Your task to perform on an android device: delete a single message in the gmail app Image 0: 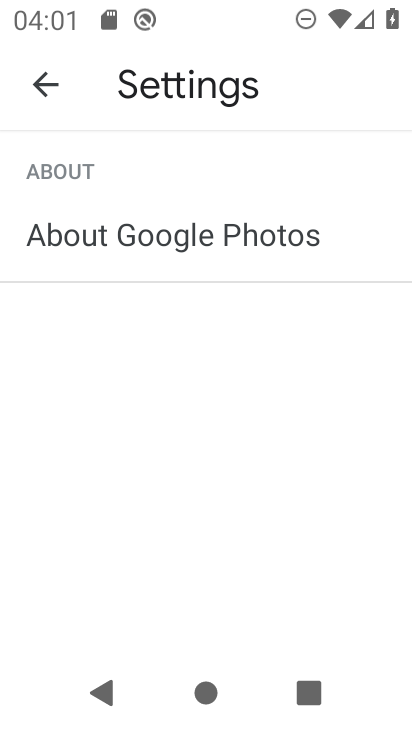
Step 0: press back button
Your task to perform on an android device: delete a single message in the gmail app Image 1: 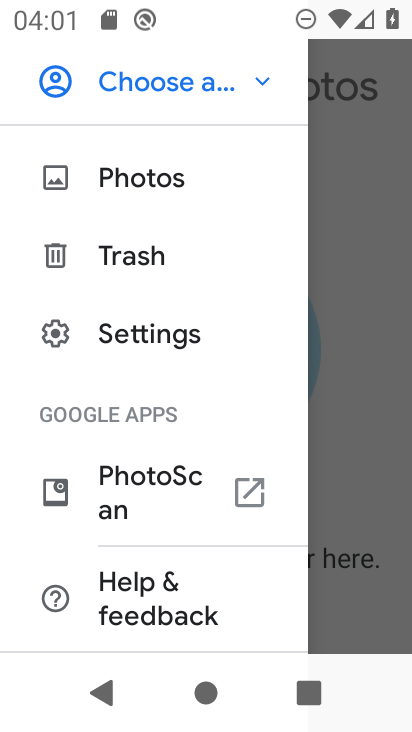
Step 1: press back button
Your task to perform on an android device: delete a single message in the gmail app Image 2: 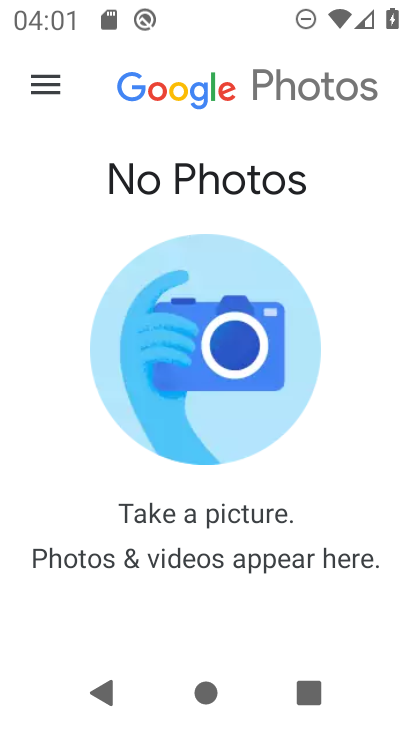
Step 2: press back button
Your task to perform on an android device: delete a single message in the gmail app Image 3: 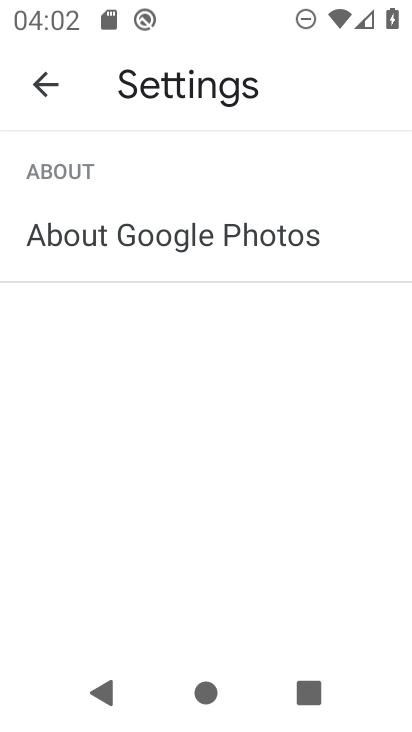
Step 3: press back button
Your task to perform on an android device: delete a single message in the gmail app Image 4: 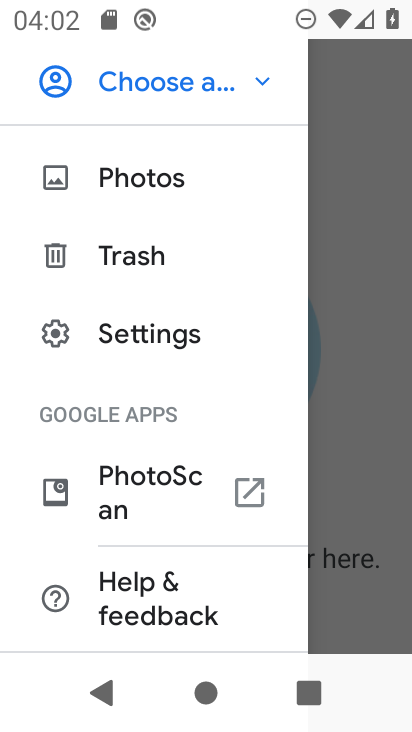
Step 4: press home button
Your task to perform on an android device: delete a single message in the gmail app Image 5: 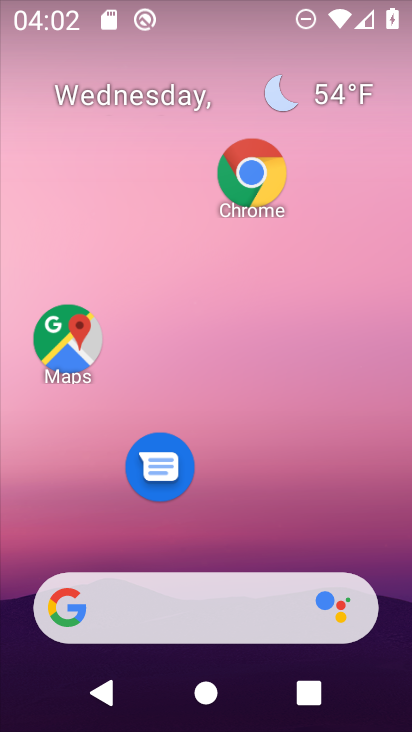
Step 5: drag from (251, 468) to (240, 75)
Your task to perform on an android device: delete a single message in the gmail app Image 6: 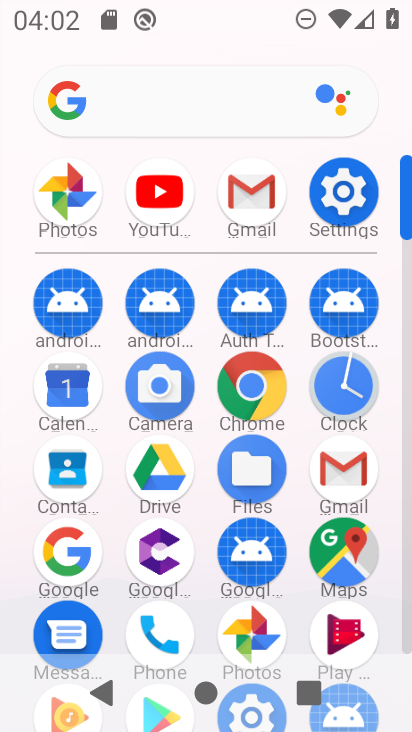
Step 6: click (253, 190)
Your task to perform on an android device: delete a single message in the gmail app Image 7: 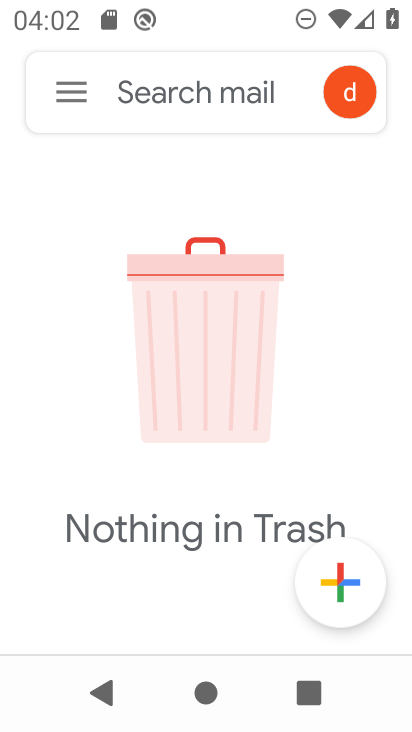
Step 7: click (57, 78)
Your task to perform on an android device: delete a single message in the gmail app Image 8: 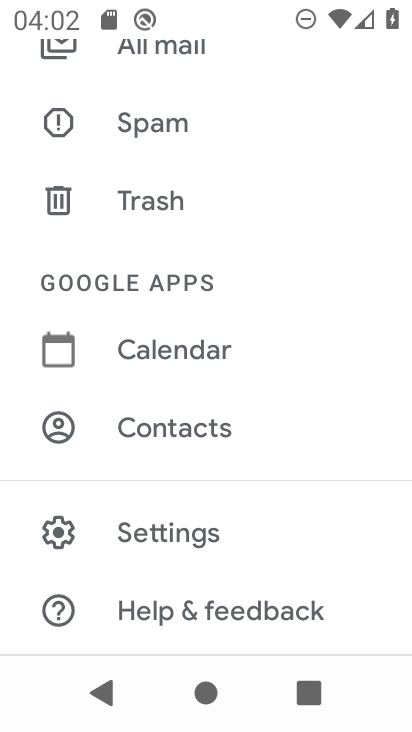
Step 8: click (161, 56)
Your task to perform on an android device: delete a single message in the gmail app Image 9: 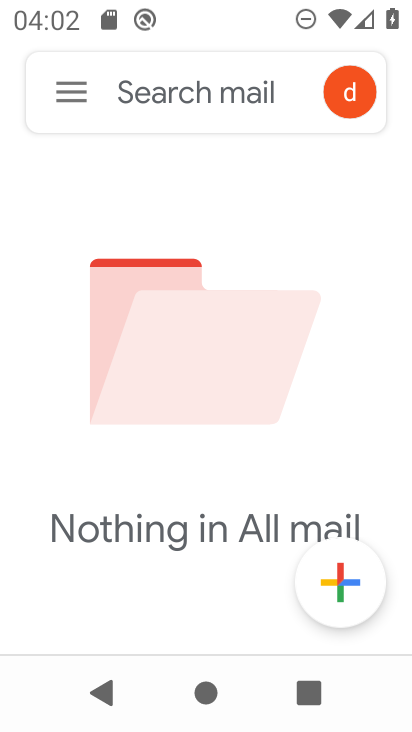
Step 9: task complete